Your task to perform on an android device: create a new album in the google photos Image 0: 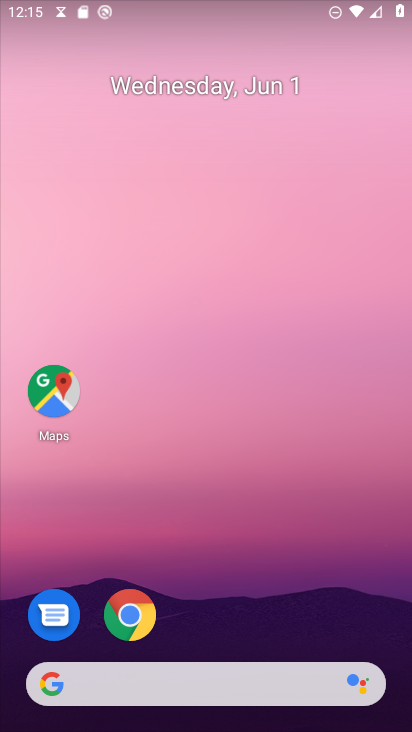
Step 0: click (298, 14)
Your task to perform on an android device: create a new album in the google photos Image 1: 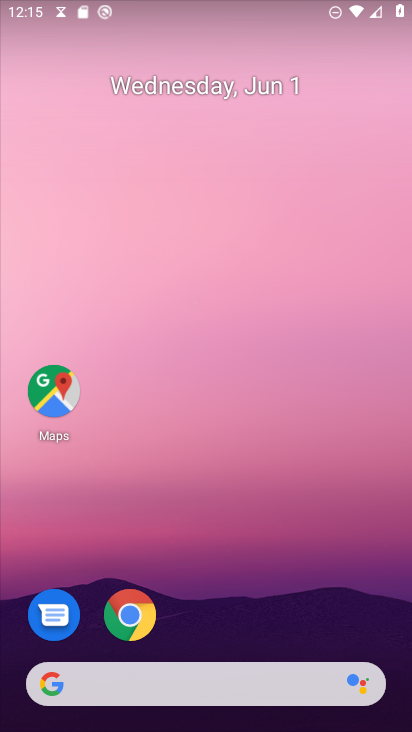
Step 1: drag from (259, 657) to (379, 2)
Your task to perform on an android device: create a new album in the google photos Image 2: 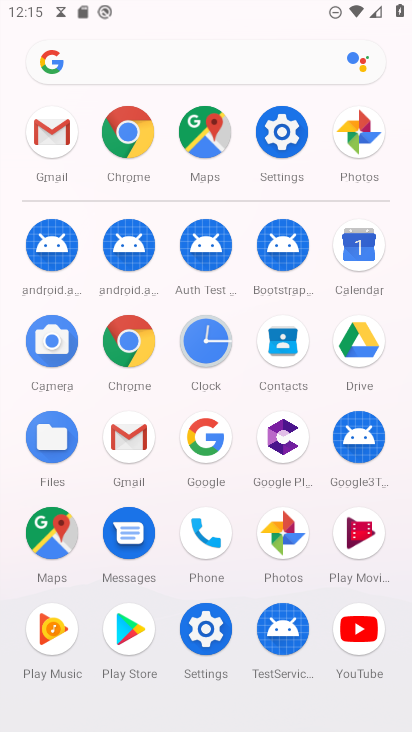
Step 2: click (146, 425)
Your task to perform on an android device: create a new album in the google photos Image 3: 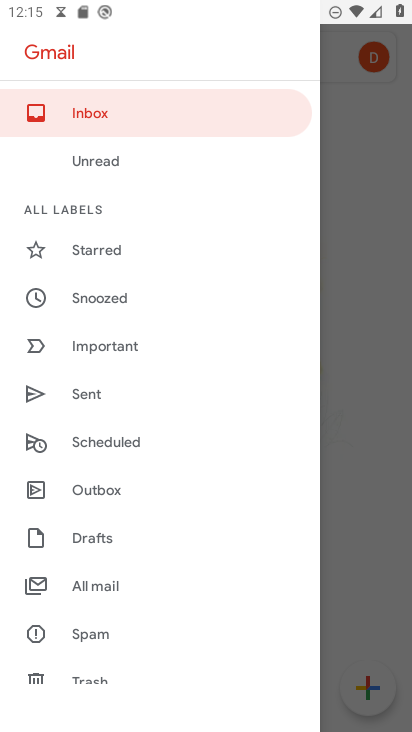
Step 3: click (374, 557)
Your task to perform on an android device: create a new album in the google photos Image 4: 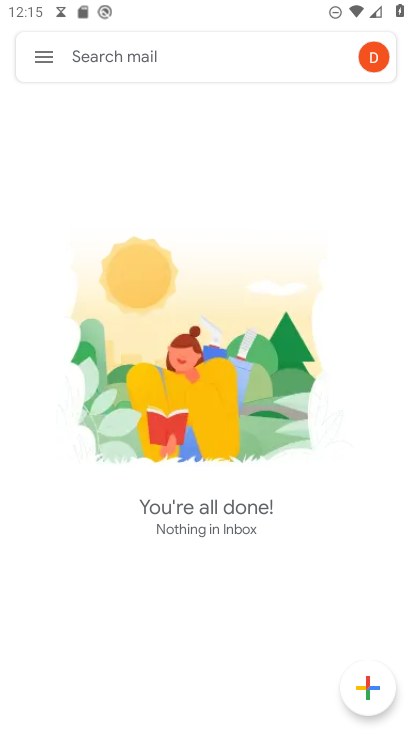
Step 4: press home button
Your task to perform on an android device: create a new album in the google photos Image 5: 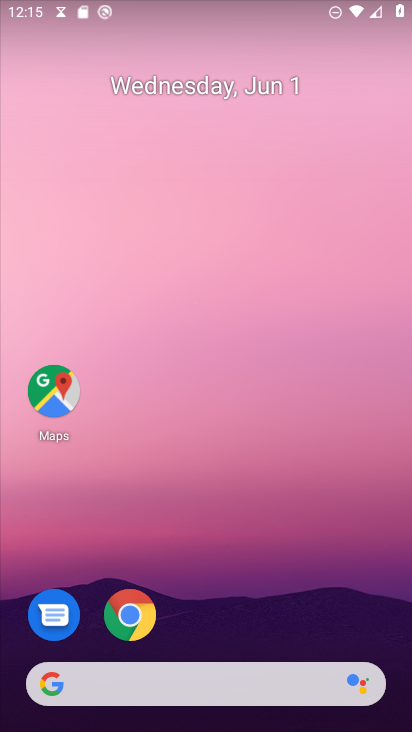
Step 5: drag from (288, 611) to (393, 0)
Your task to perform on an android device: create a new album in the google photos Image 6: 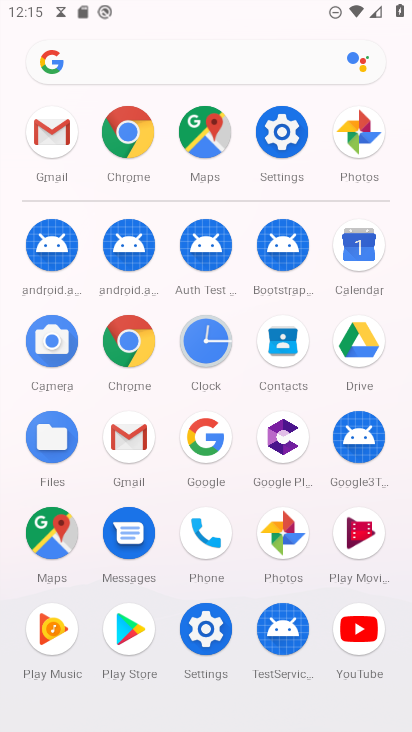
Step 6: click (269, 539)
Your task to perform on an android device: create a new album in the google photos Image 7: 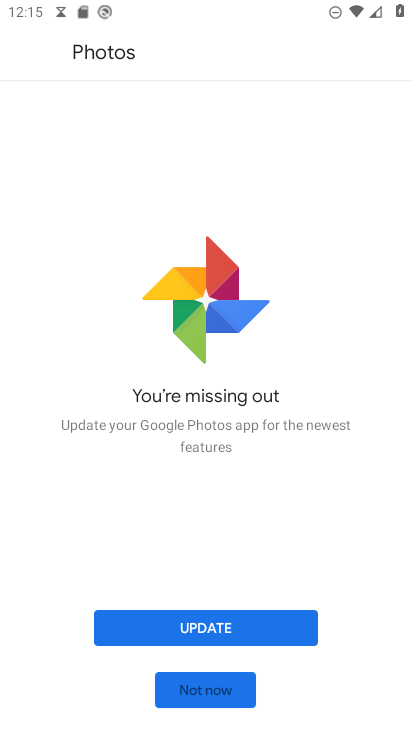
Step 7: click (244, 616)
Your task to perform on an android device: create a new album in the google photos Image 8: 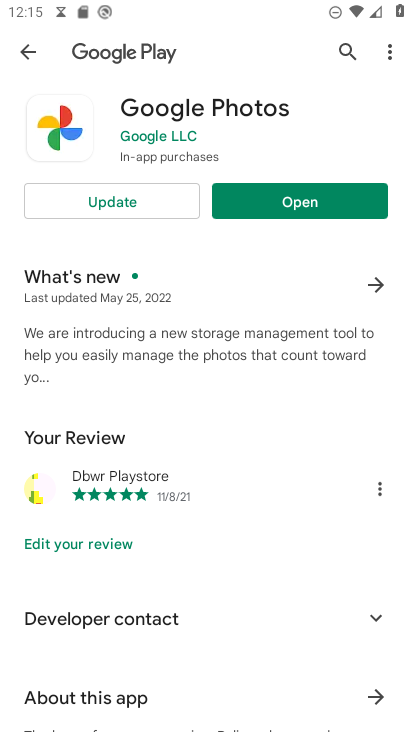
Step 8: click (152, 194)
Your task to perform on an android device: create a new album in the google photos Image 9: 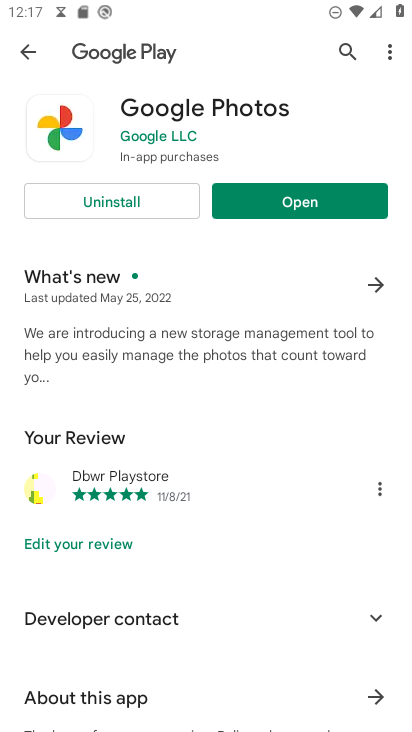
Step 9: click (311, 214)
Your task to perform on an android device: create a new album in the google photos Image 10: 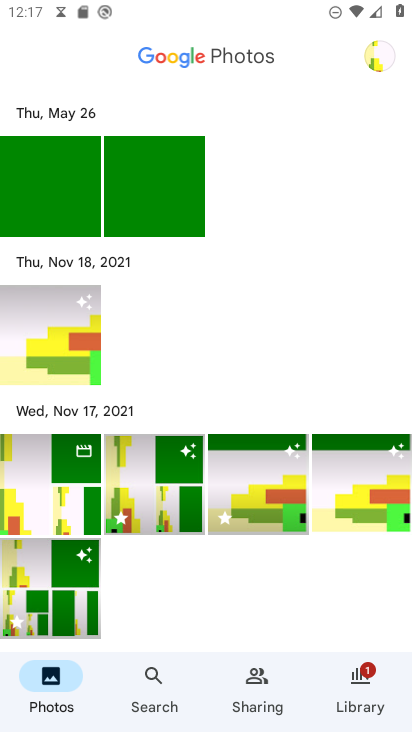
Step 10: click (382, 55)
Your task to perform on an android device: create a new album in the google photos Image 11: 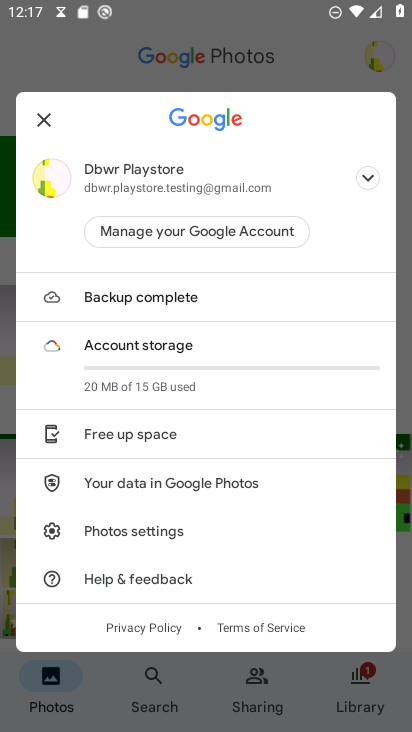
Step 11: click (34, 114)
Your task to perform on an android device: create a new album in the google photos Image 12: 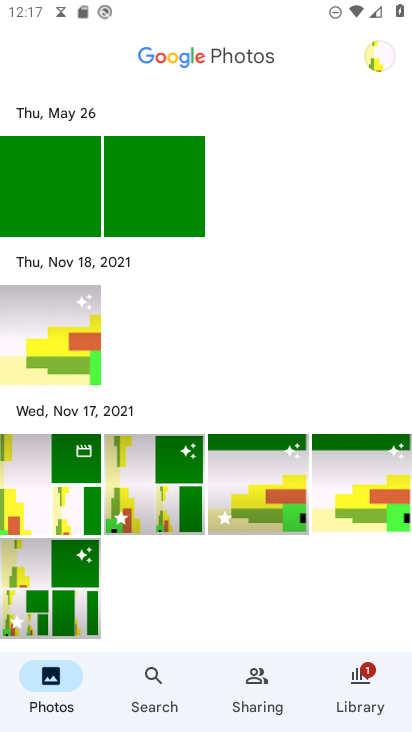
Step 12: click (269, 709)
Your task to perform on an android device: create a new album in the google photos Image 13: 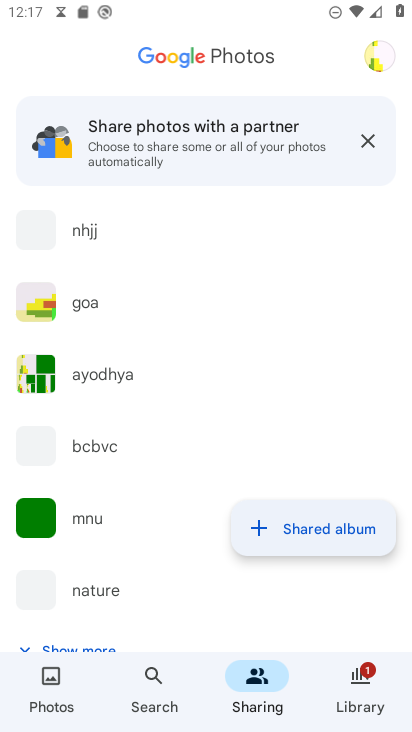
Step 13: click (339, 683)
Your task to perform on an android device: create a new album in the google photos Image 14: 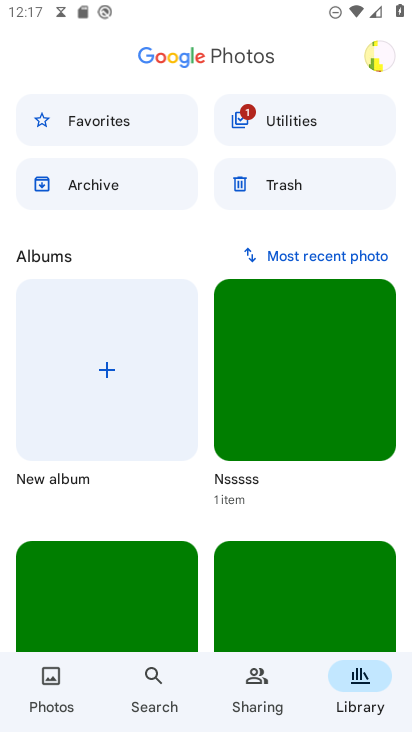
Step 14: click (125, 380)
Your task to perform on an android device: create a new album in the google photos Image 15: 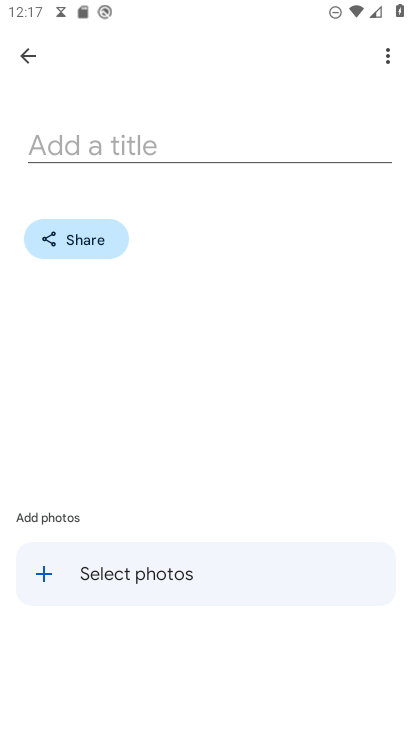
Step 15: click (195, 142)
Your task to perform on an android device: create a new album in the google photos Image 16: 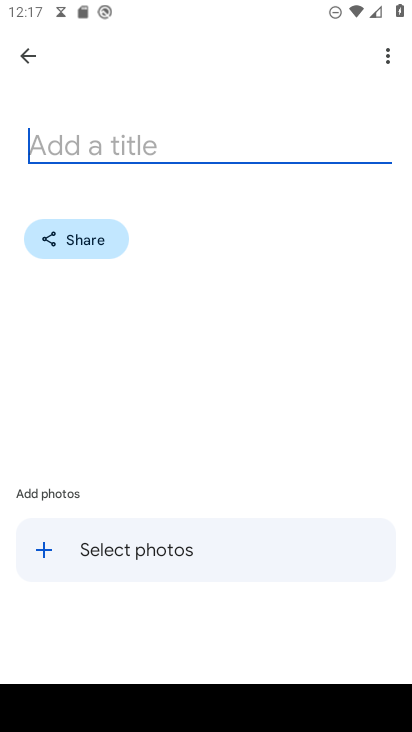
Step 16: type "uigiugiu"
Your task to perform on an android device: create a new album in the google photos Image 17: 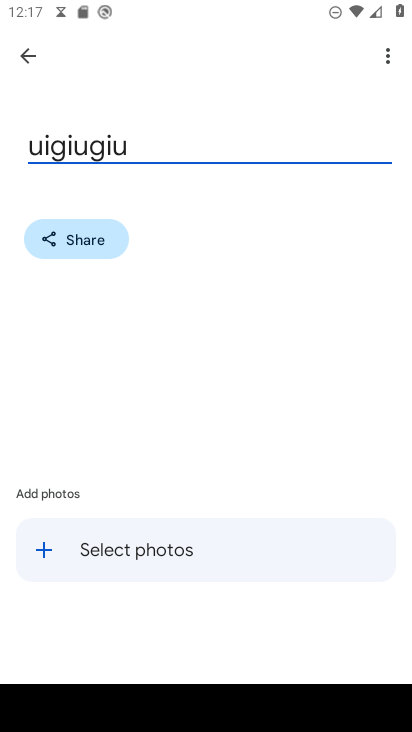
Step 17: click (58, 549)
Your task to perform on an android device: create a new album in the google photos Image 18: 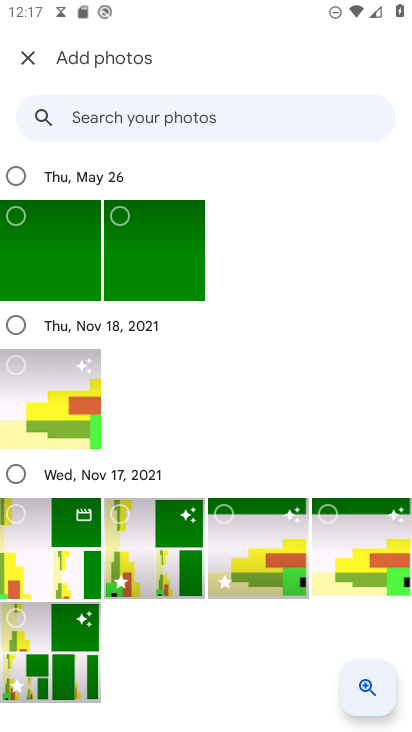
Step 18: click (19, 235)
Your task to perform on an android device: create a new album in the google photos Image 19: 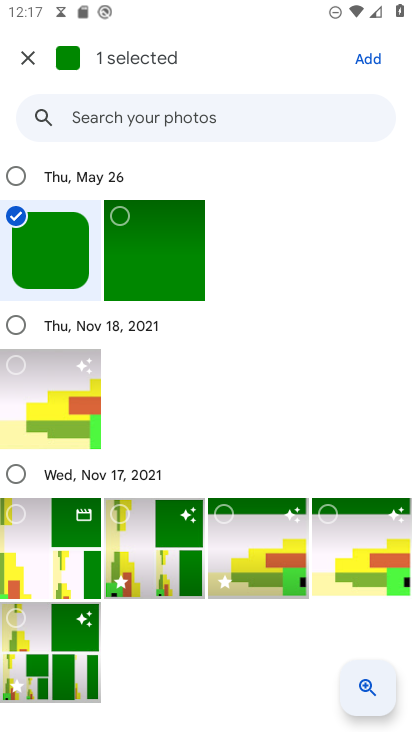
Step 19: click (364, 56)
Your task to perform on an android device: create a new album in the google photos Image 20: 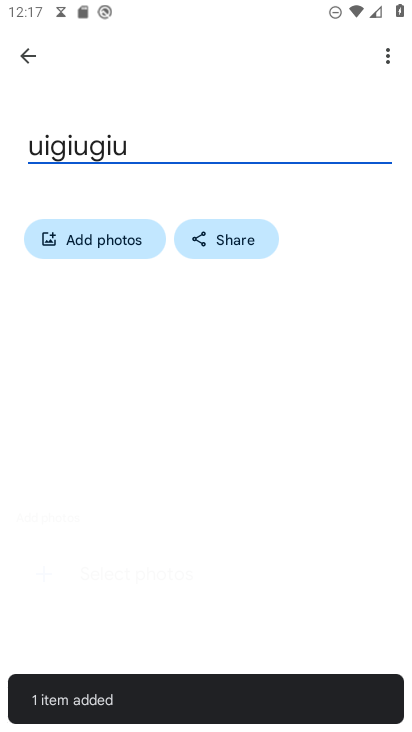
Step 20: task complete